Your task to perform on an android device: Go to Google Image 0: 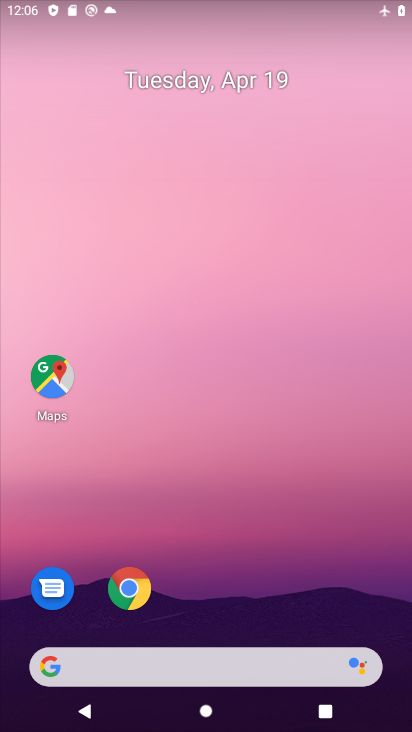
Step 0: drag from (381, 605) to (383, 80)
Your task to perform on an android device: Go to Google Image 1: 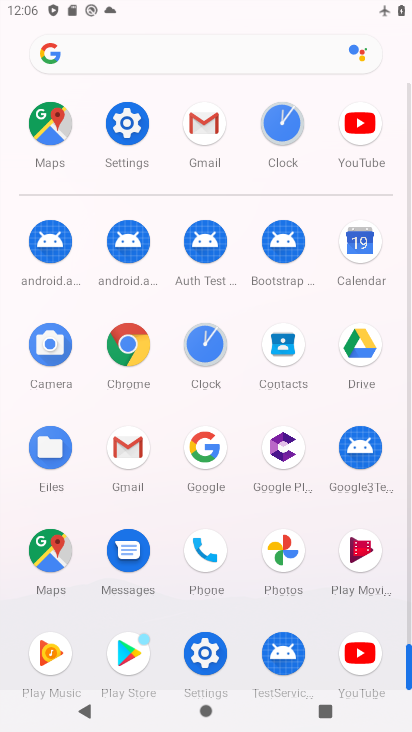
Step 1: click (209, 452)
Your task to perform on an android device: Go to Google Image 2: 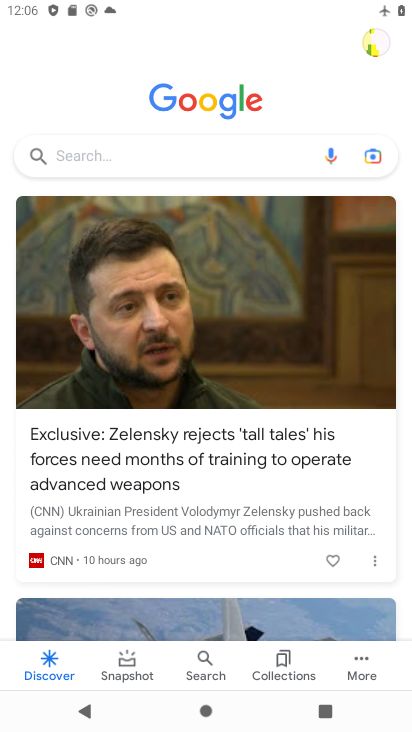
Step 2: task complete